Your task to perform on an android device: turn off notifications in google photos Image 0: 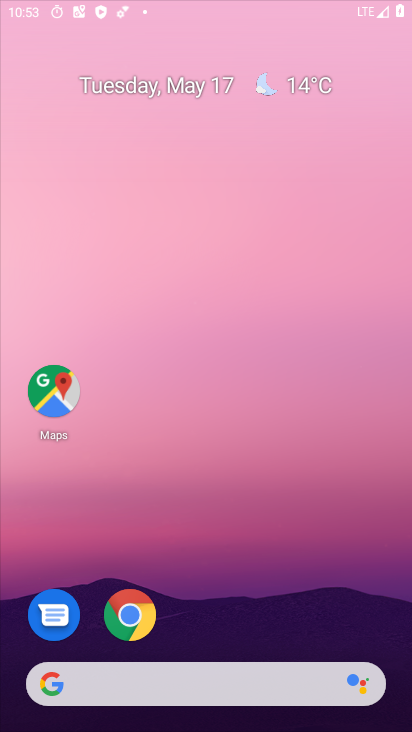
Step 0: click (311, 138)
Your task to perform on an android device: turn off notifications in google photos Image 1: 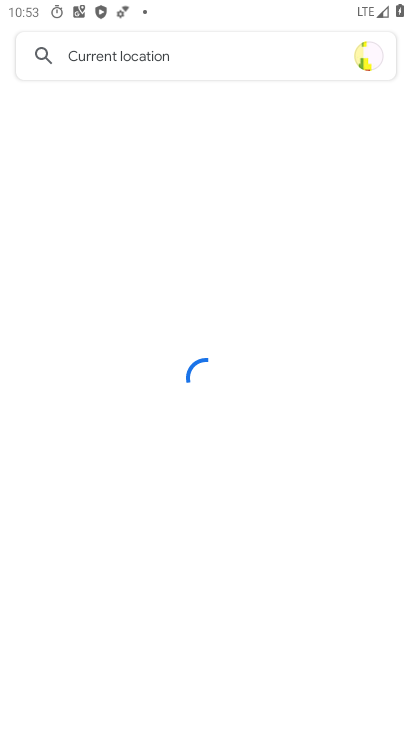
Step 1: press home button
Your task to perform on an android device: turn off notifications in google photos Image 2: 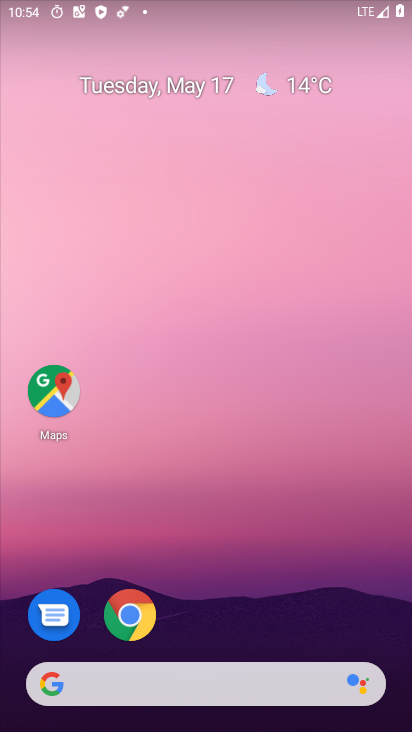
Step 2: drag from (156, 662) to (281, 169)
Your task to perform on an android device: turn off notifications in google photos Image 3: 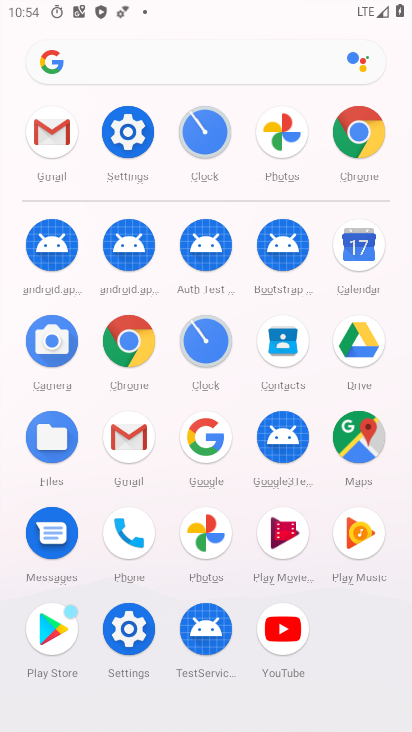
Step 3: click (278, 141)
Your task to perform on an android device: turn off notifications in google photos Image 4: 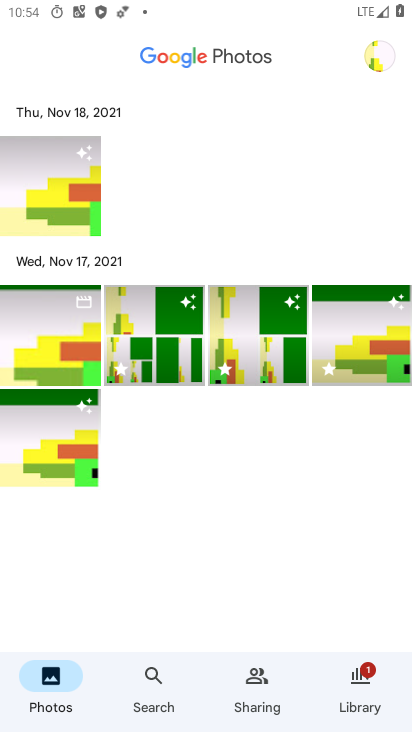
Step 4: click (376, 58)
Your task to perform on an android device: turn off notifications in google photos Image 5: 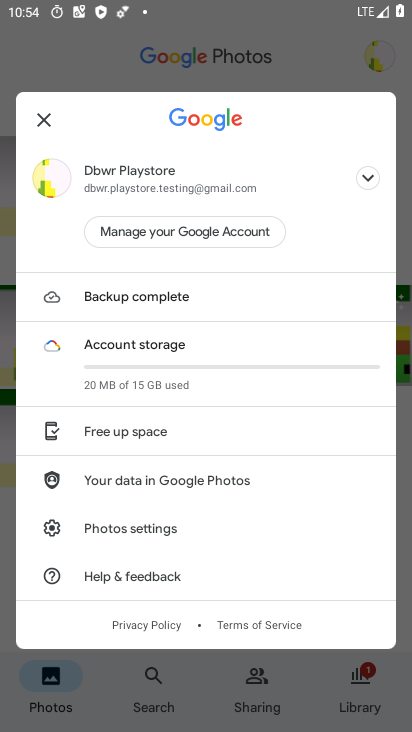
Step 5: click (145, 528)
Your task to perform on an android device: turn off notifications in google photos Image 6: 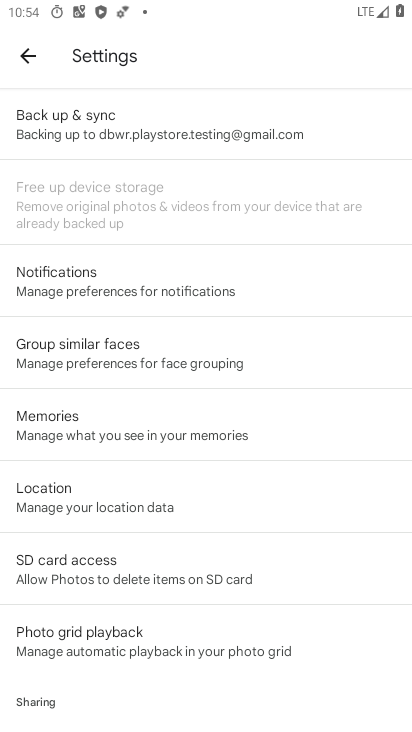
Step 6: click (167, 296)
Your task to perform on an android device: turn off notifications in google photos Image 7: 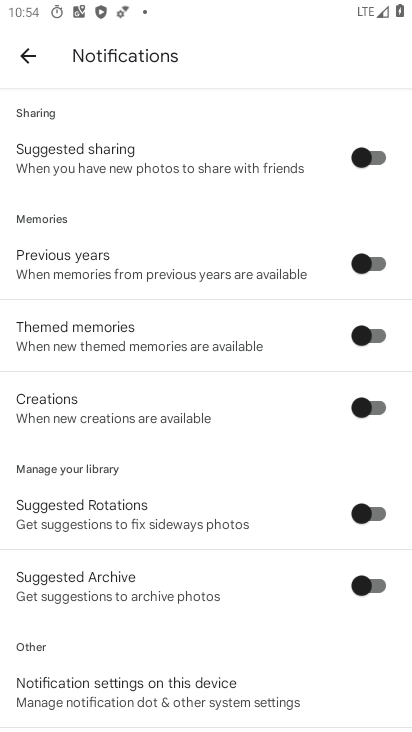
Step 7: drag from (209, 633) to (294, 230)
Your task to perform on an android device: turn off notifications in google photos Image 8: 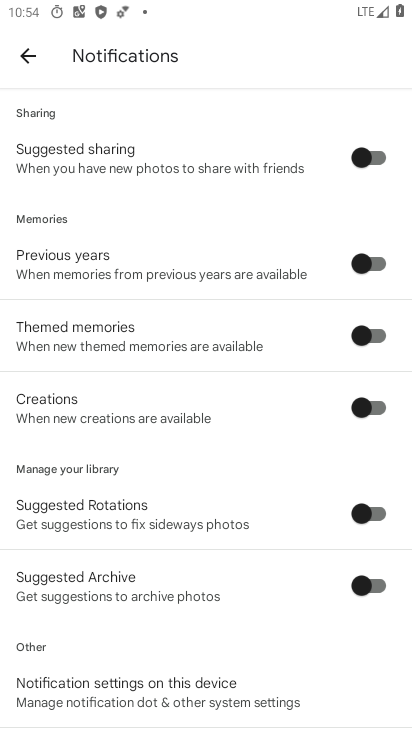
Step 8: click (206, 684)
Your task to perform on an android device: turn off notifications in google photos Image 9: 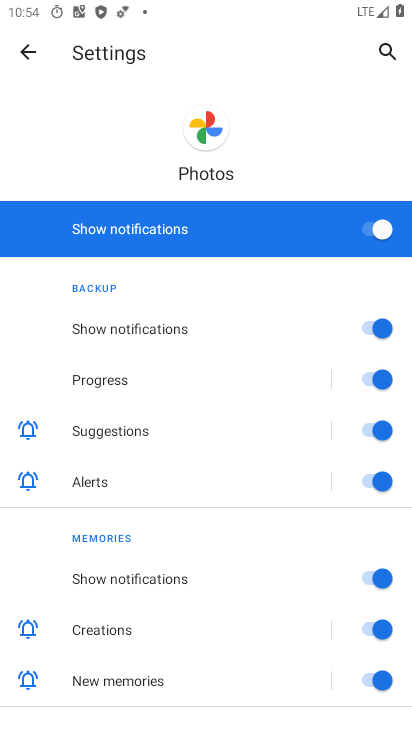
Step 9: click (369, 229)
Your task to perform on an android device: turn off notifications in google photos Image 10: 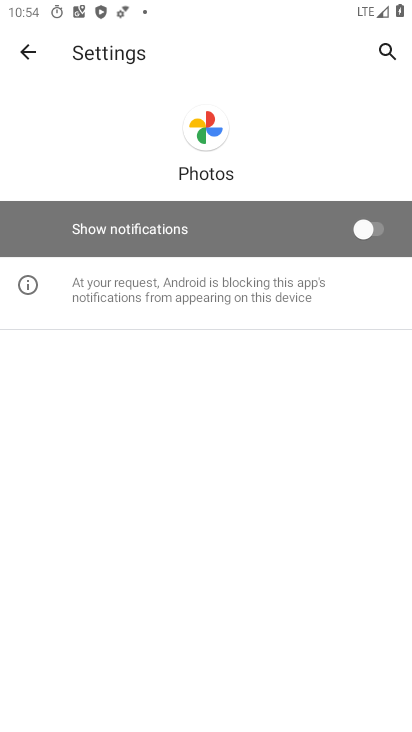
Step 10: task complete